Your task to perform on an android device: change alarm snooze length Image 0: 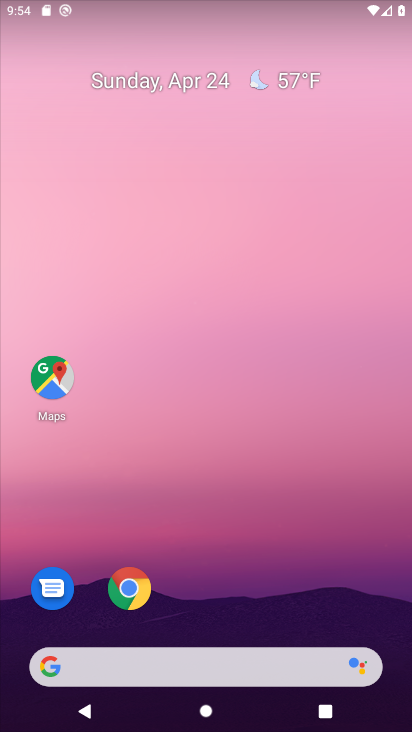
Step 0: drag from (287, 574) to (323, 44)
Your task to perform on an android device: change alarm snooze length Image 1: 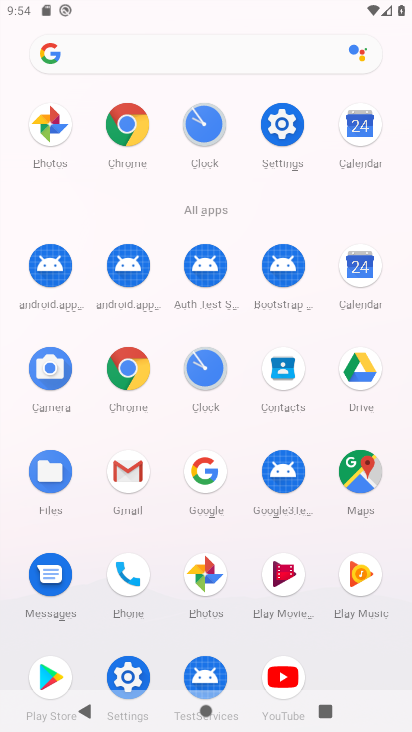
Step 1: click (209, 377)
Your task to perform on an android device: change alarm snooze length Image 2: 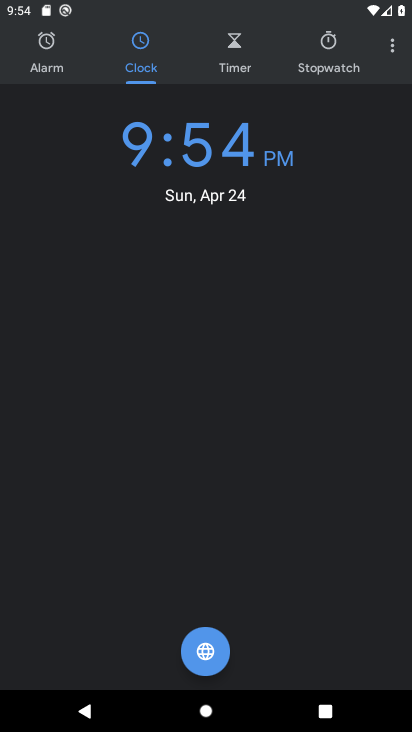
Step 2: click (396, 47)
Your task to perform on an android device: change alarm snooze length Image 3: 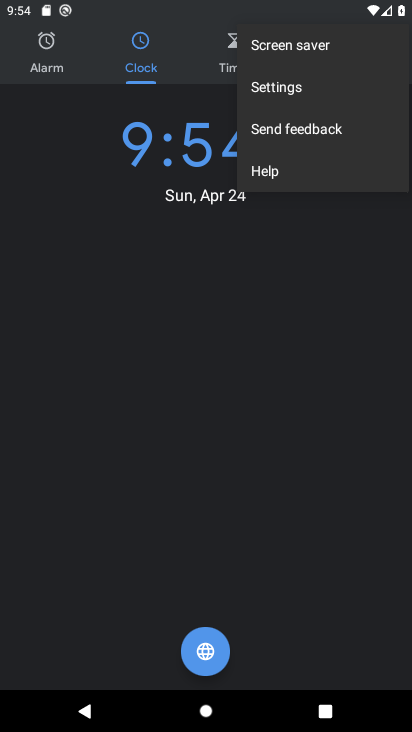
Step 3: click (286, 88)
Your task to perform on an android device: change alarm snooze length Image 4: 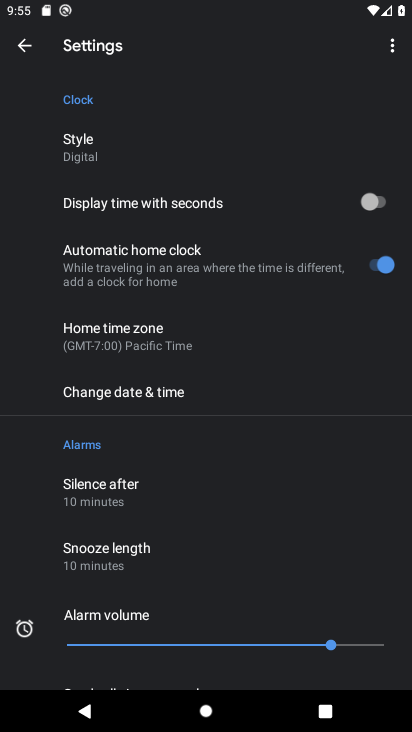
Step 4: click (136, 548)
Your task to perform on an android device: change alarm snooze length Image 5: 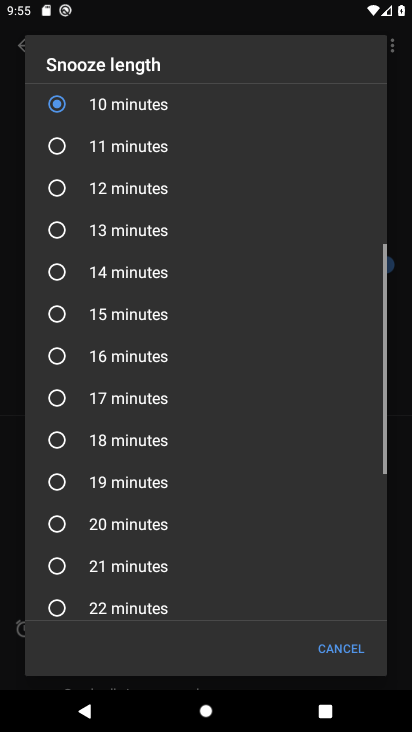
Step 5: drag from (243, 184) to (234, 526)
Your task to perform on an android device: change alarm snooze length Image 6: 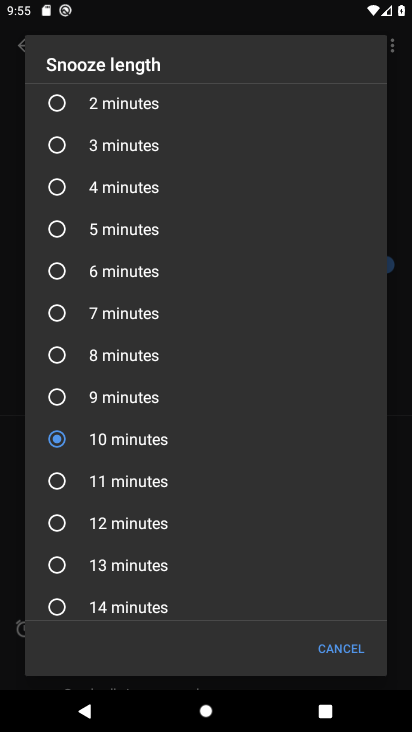
Step 6: click (57, 226)
Your task to perform on an android device: change alarm snooze length Image 7: 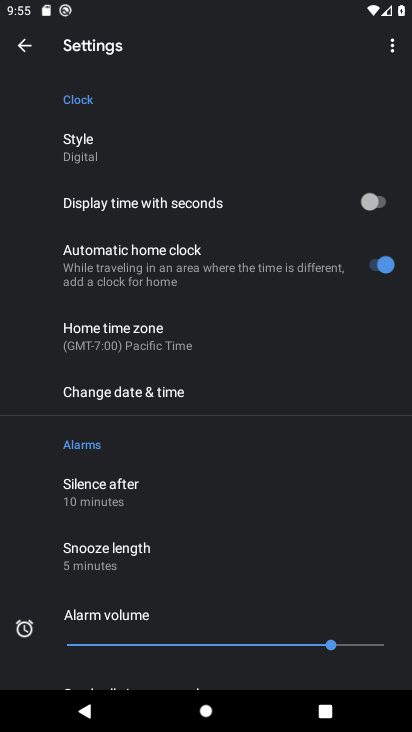
Step 7: task complete